Your task to perform on an android device: toggle improve location accuracy Image 0: 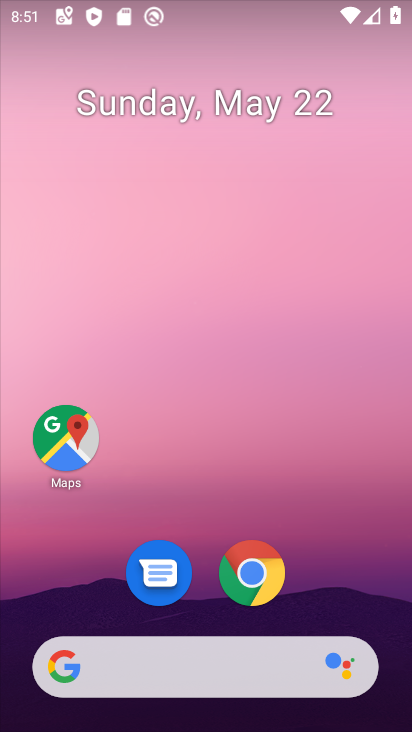
Step 0: drag from (262, 659) to (232, 0)
Your task to perform on an android device: toggle improve location accuracy Image 1: 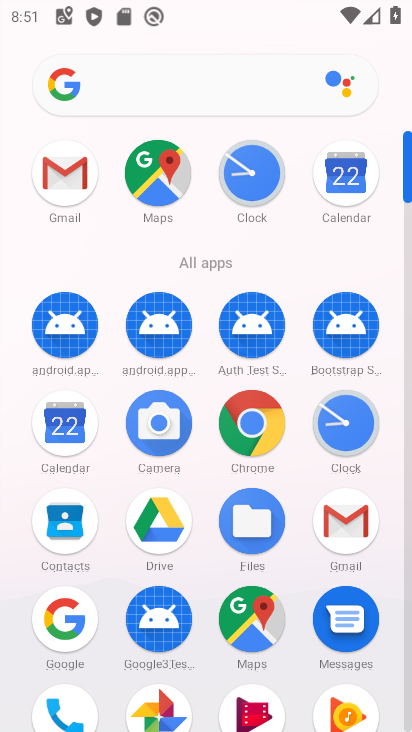
Step 1: drag from (298, 588) to (342, 130)
Your task to perform on an android device: toggle improve location accuracy Image 2: 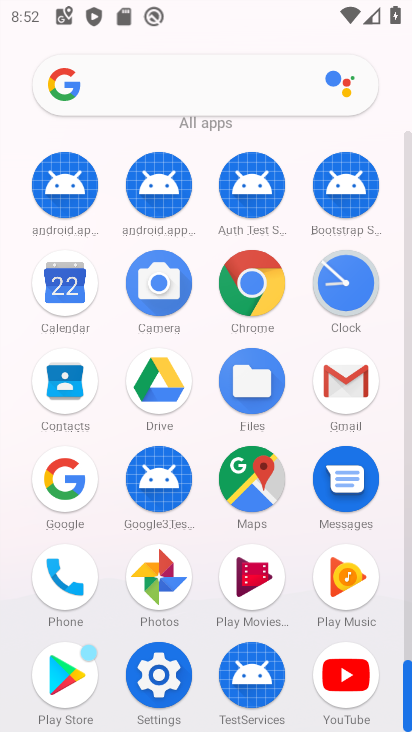
Step 2: click (161, 667)
Your task to perform on an android device: toggle improve location accuracy Image 3: 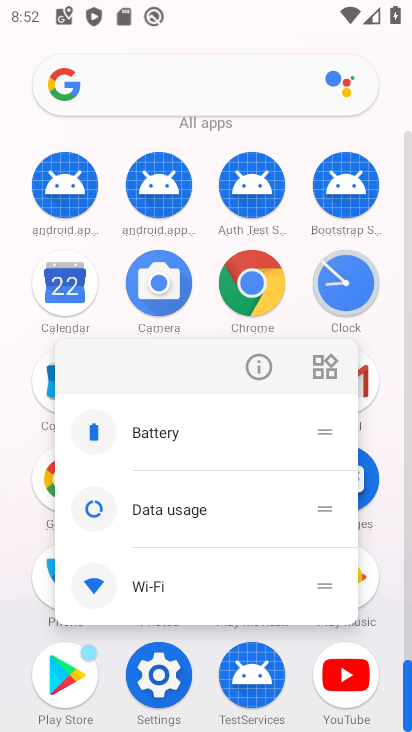
Step 3: click (161, 667)
Your task to perform on an android device: toggle improve location accuracy Image 4: 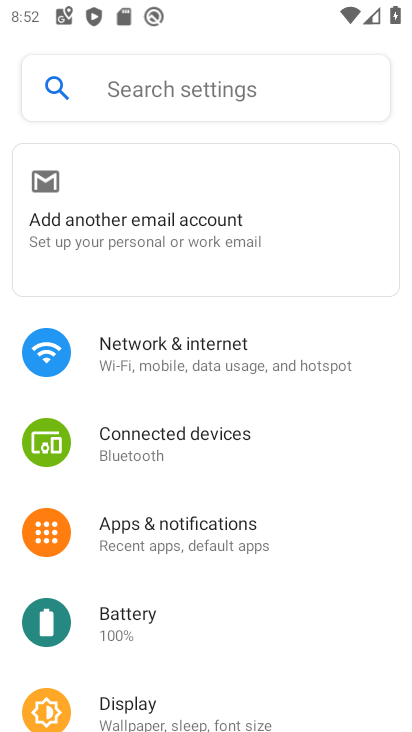
Step 4: drag from (237, 639) to (262, 203)
Your task to perform on an android device: toggle improve location accuracy Image 5: 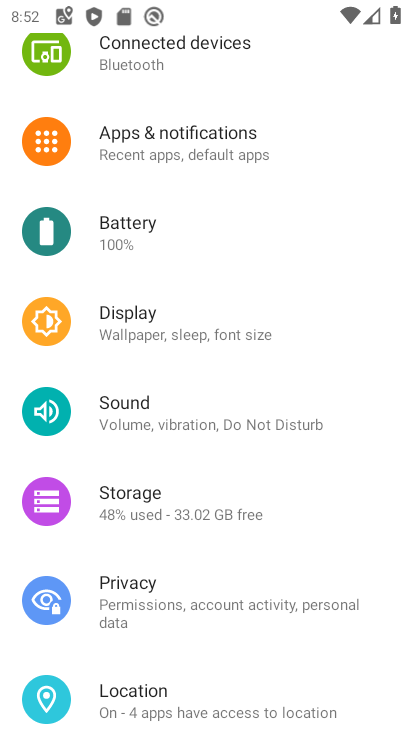
Step 5: click (207, 701)
Your task to perform on an android device: toggle improve location accuracy Image 6: 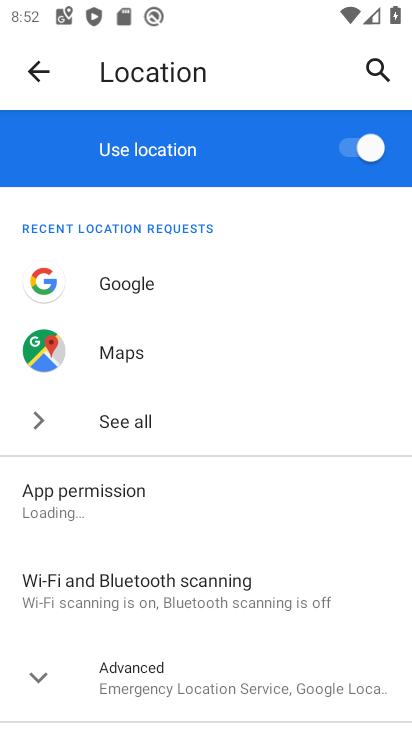
Step 6: drag from (176, 718) to (259, 168)
Your task to perform on an android device: toggle improve location accuracy Image 7: 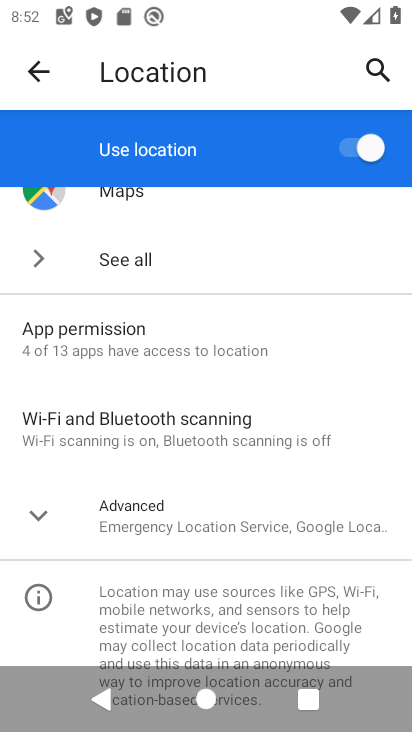
Step 7: click (191, 517)
Your task to perform on an android device: toggle improve location accuracy Image 8: 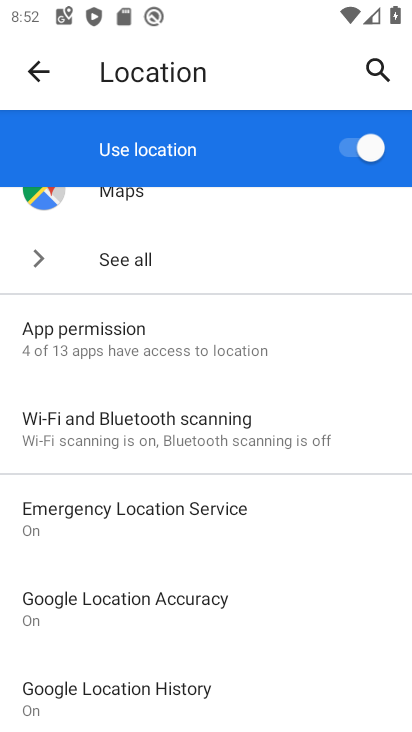
Step 8: drag from (207, 605) to (241, 280)
Your task to perform on an android device: toggle improve location accuracy Image 9: 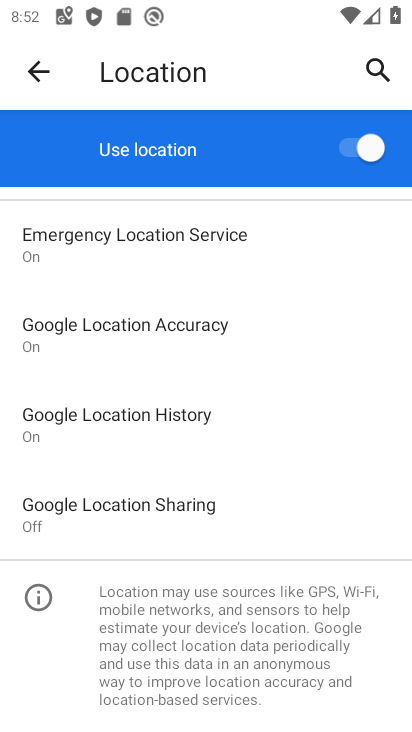
Step 9: click (206, 325)
Your task to perform on an android device: toggle improve location accuracy Image 10: 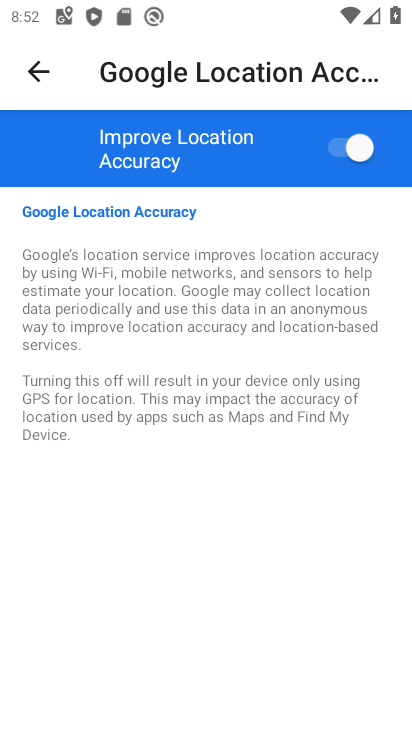
Step 10: click (344, 147)
Your task to perform on an android device: toggle improve location accuracy Image 11: 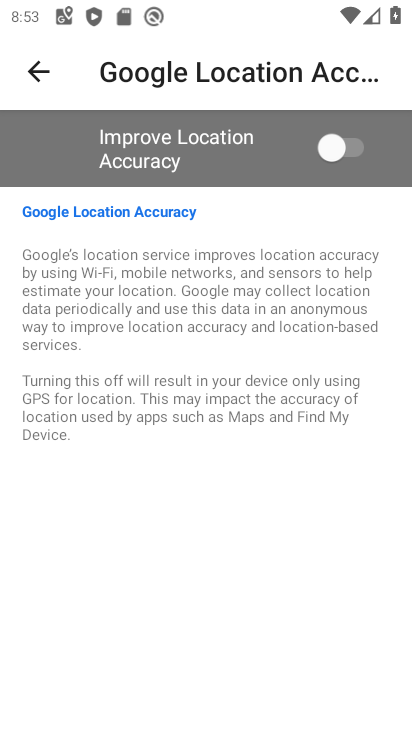
Step 11: task complete